Your task to perform on an android device: Add "bose soundlink" to the cart on ebay, then select checkout. Image 0: 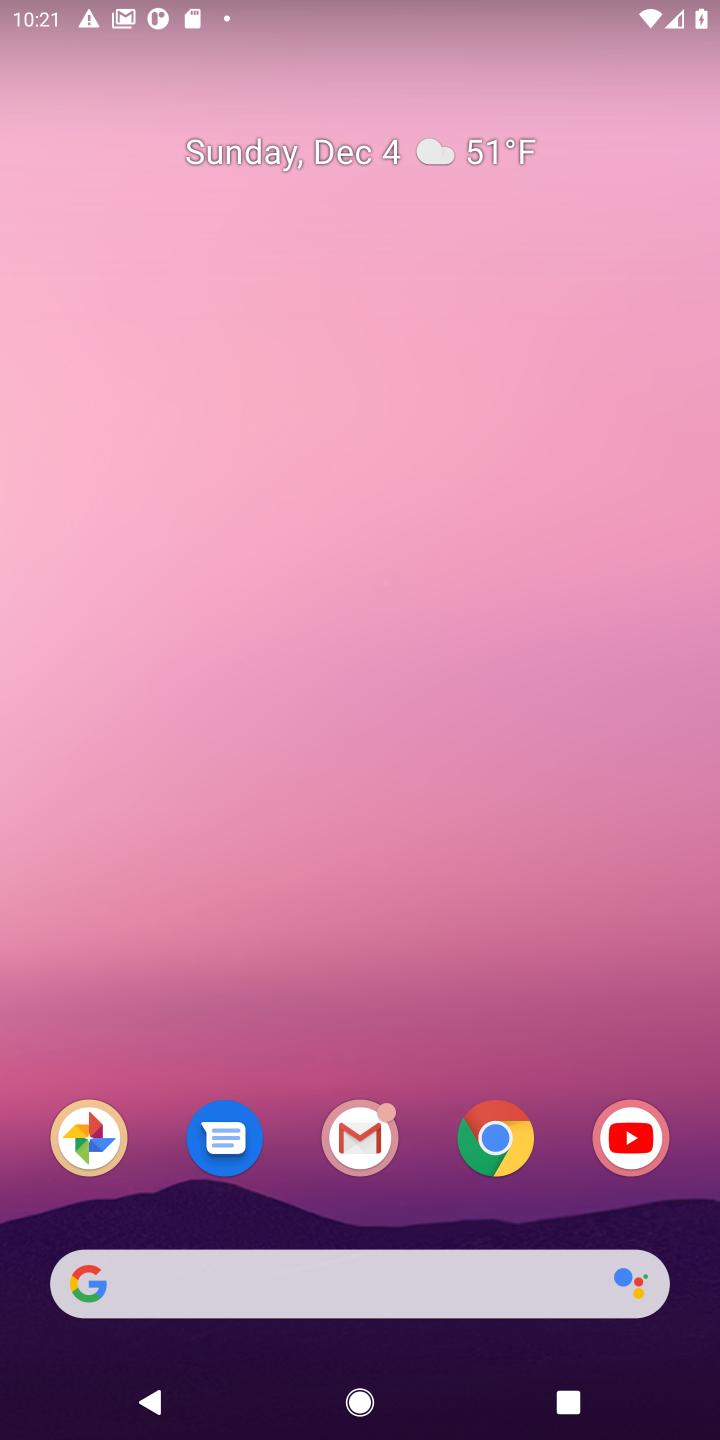
Step 0: click (493, 1134)
Your task to perform on an android device: Add "bose soundlink" to the cart on ebay, then select checkout. Image 1: 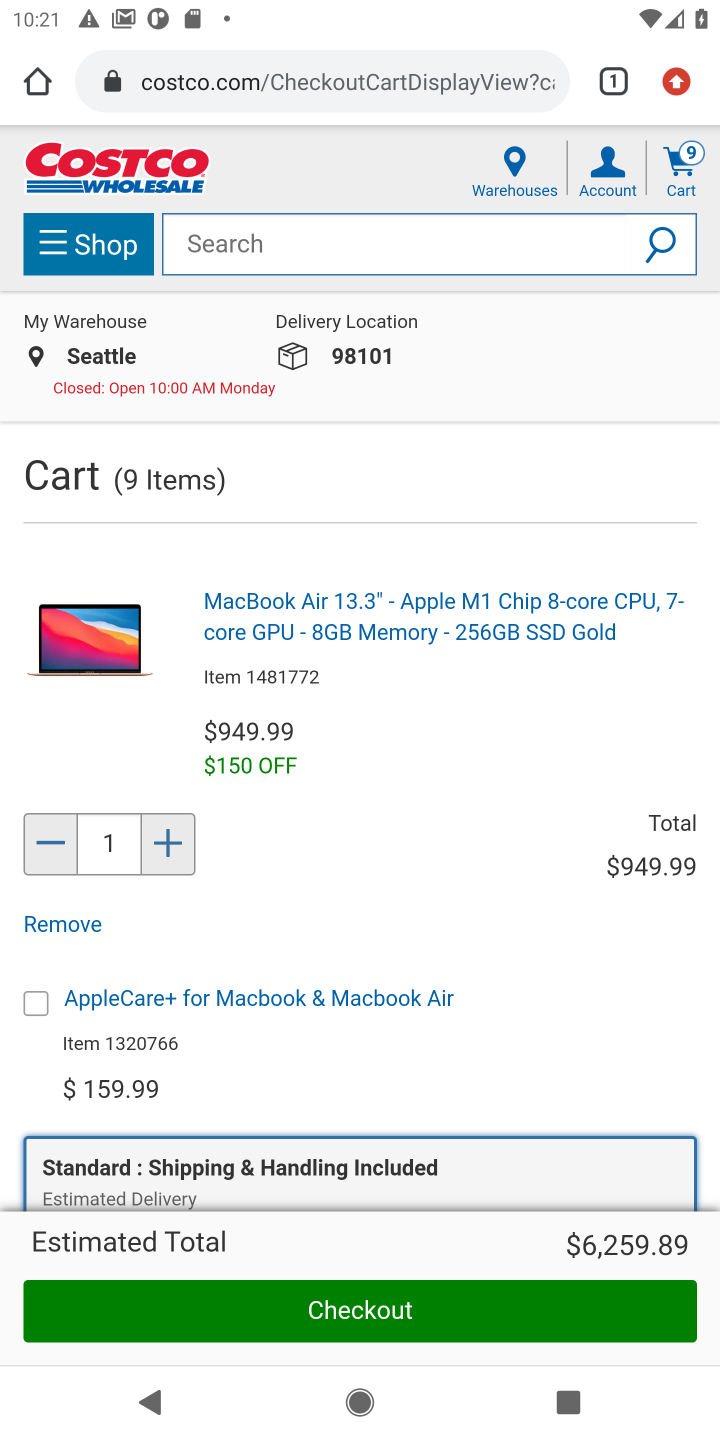
Step 1: click (437, 83)
Your task to perform on an android device: Add "bose soundlink" to the cart on ebay, then select checkout. Image 2: 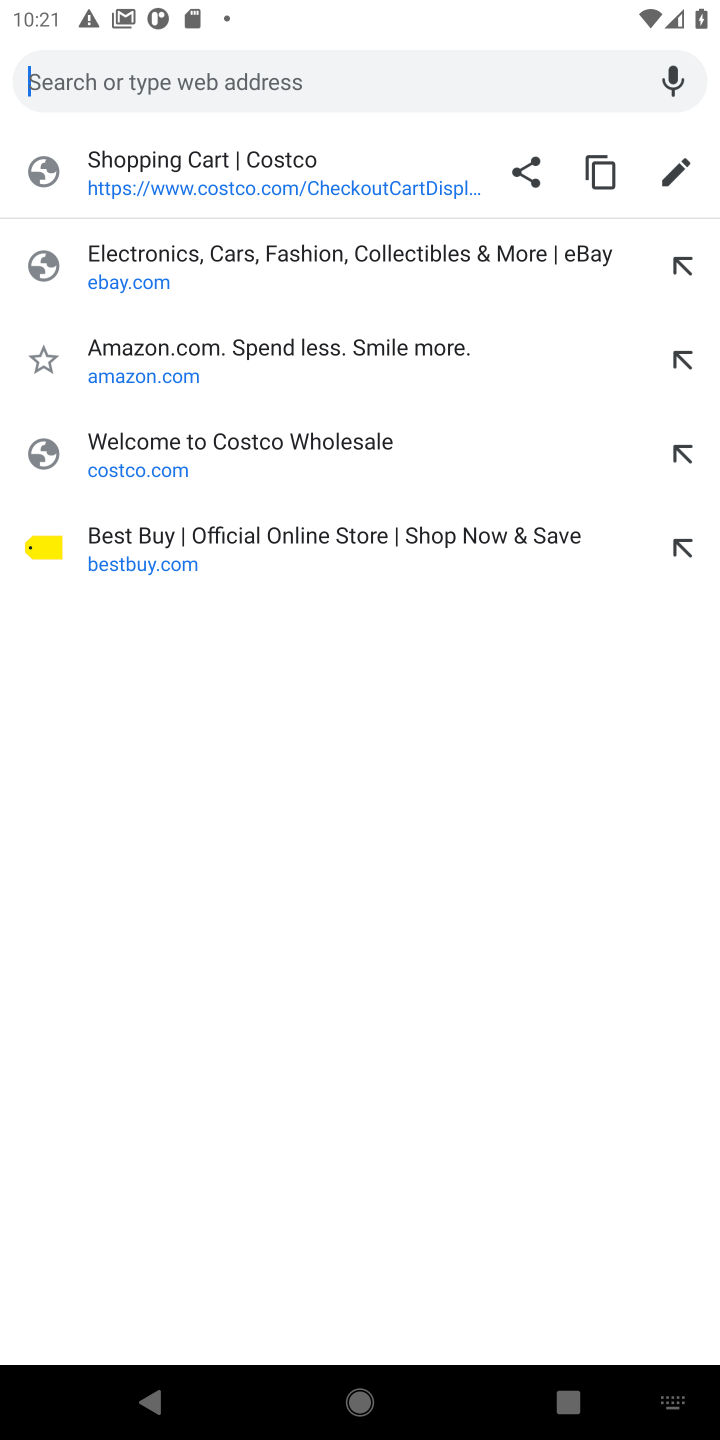
Step 2: click (256, 249)
Your task to perform on an android device: Add "bose soundlink" to the cart on ebay, then select checkout. Image 3: 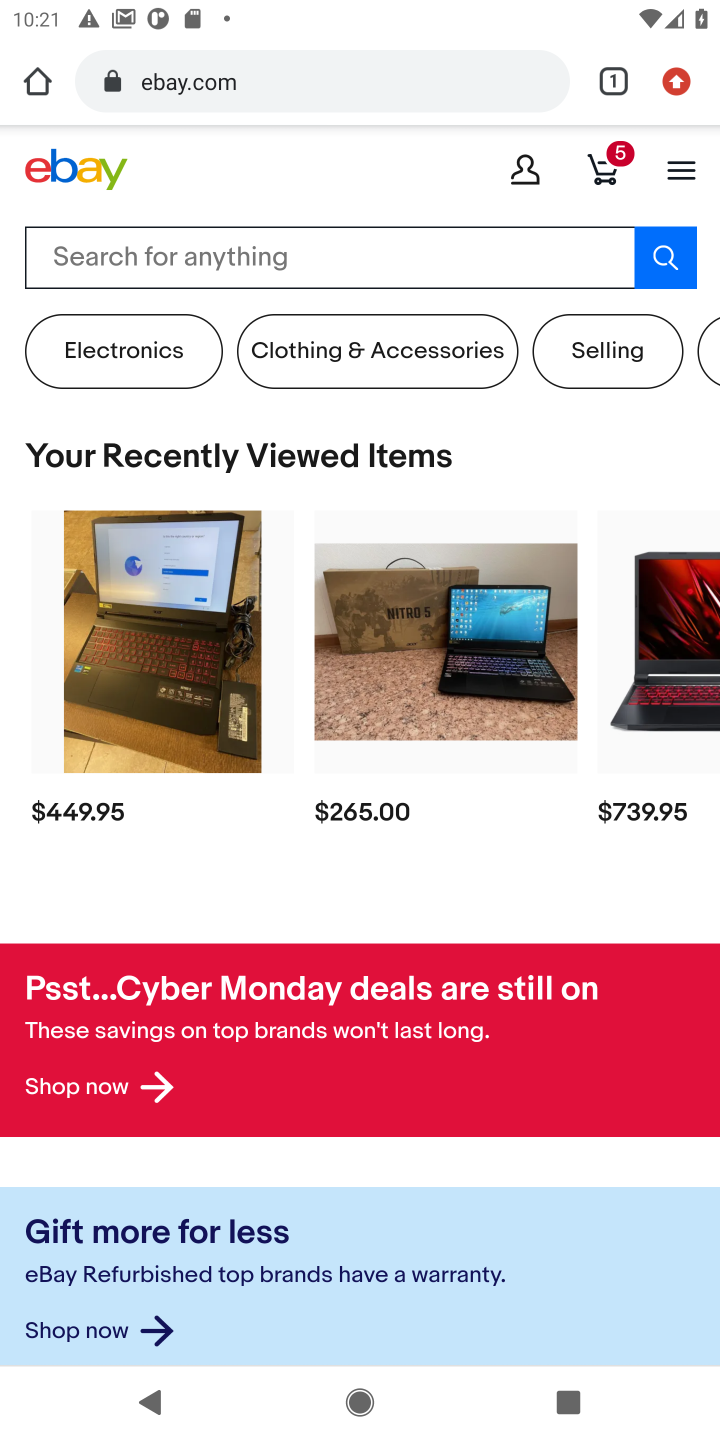
Step 3: click (457, 234)
Your task to perform on an android device: Add "bose soundlink" to the cart on ebay, then select checkout. Image 4: 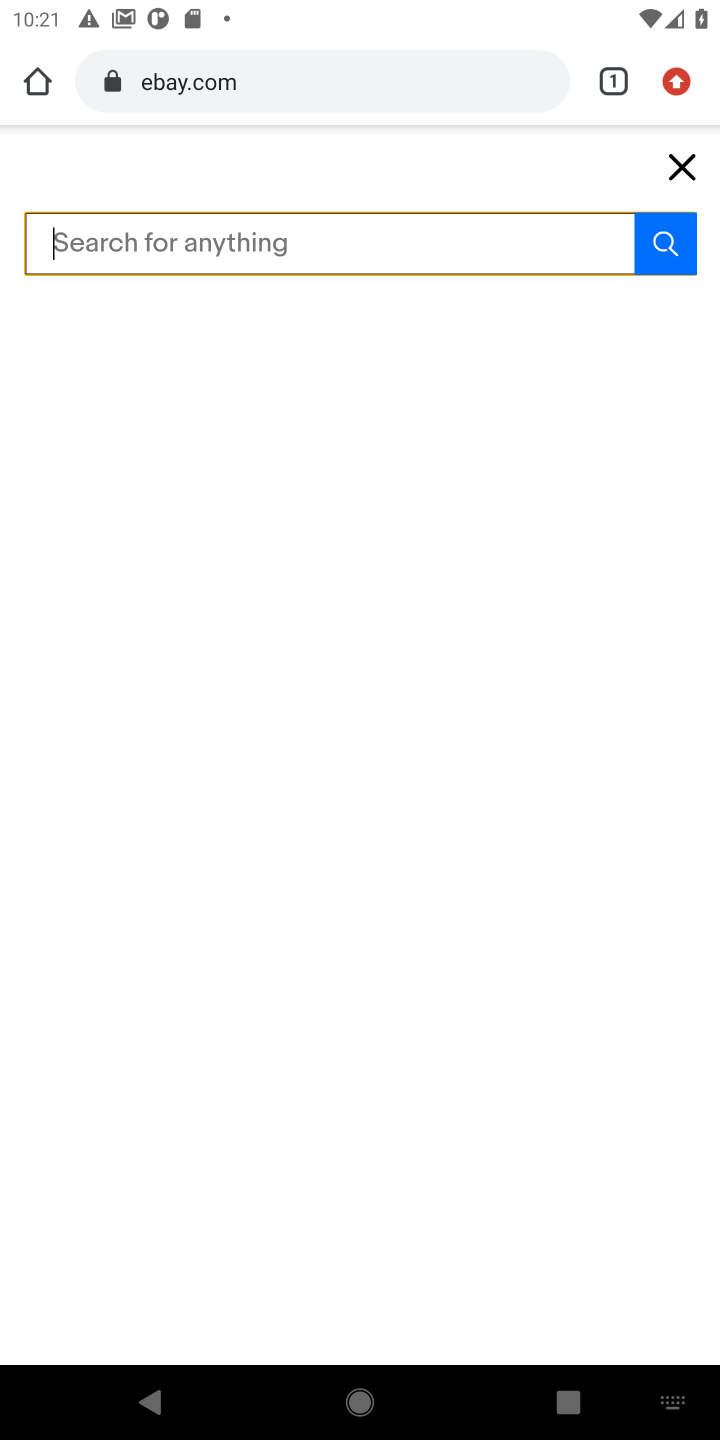
Step 4: press enter
Your task to perform on an android device: Add "bose soundlink" to the cart on ebay, then select checkout. Image 5: 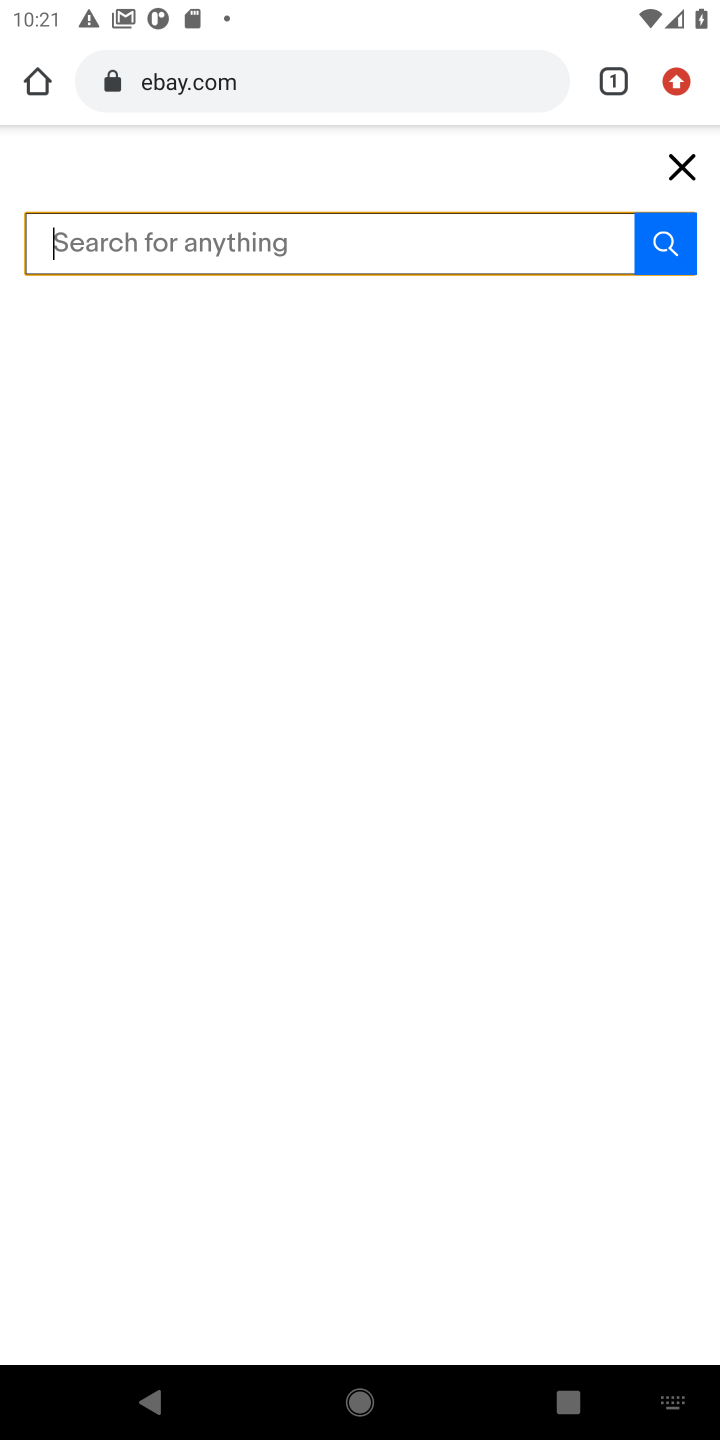
Step 5: type "bose soundlink"
Your task to perform on an android device: Add "bose soundlink" to the cart on ebay, then select checkout. Image 6: 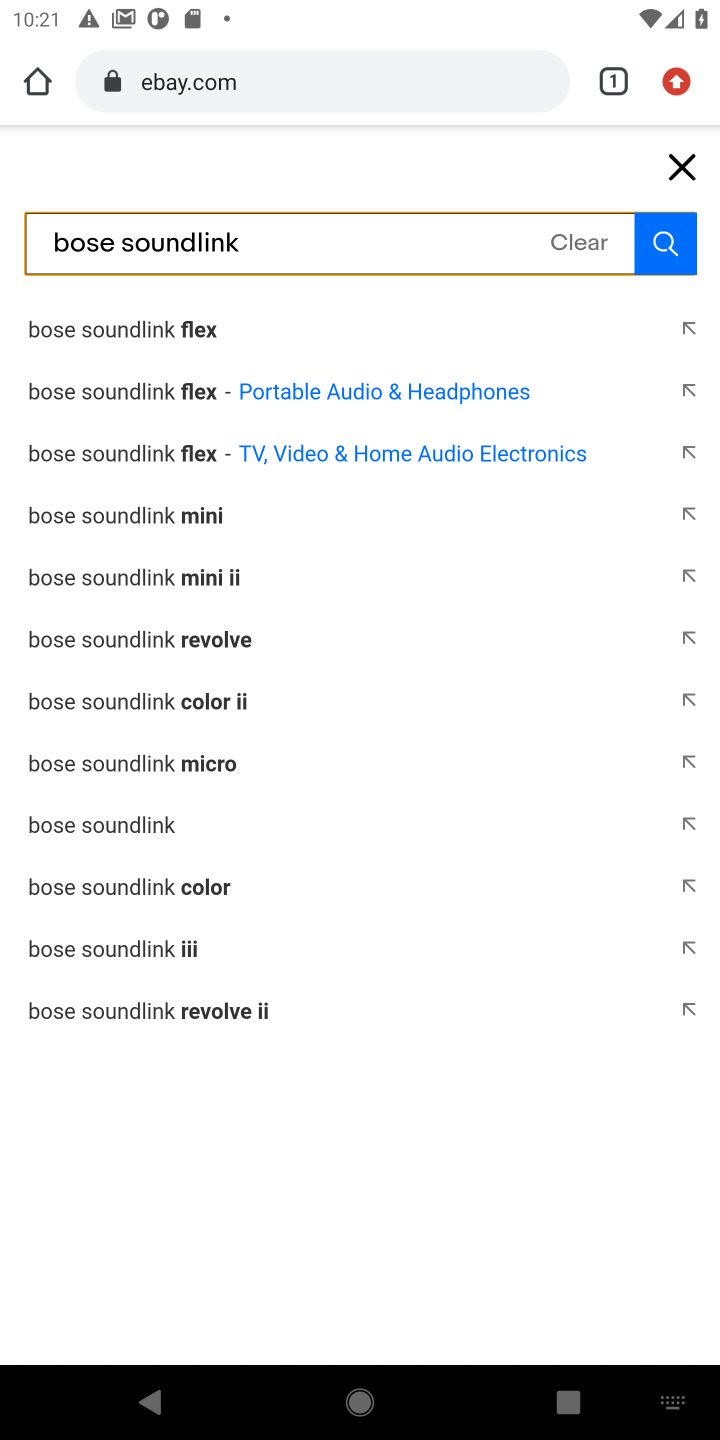
Step 6: click (154, 832)
Your task to perform on an android device: Add "bose soundlink" to the cart on ebay, then select checkout. Image 7: 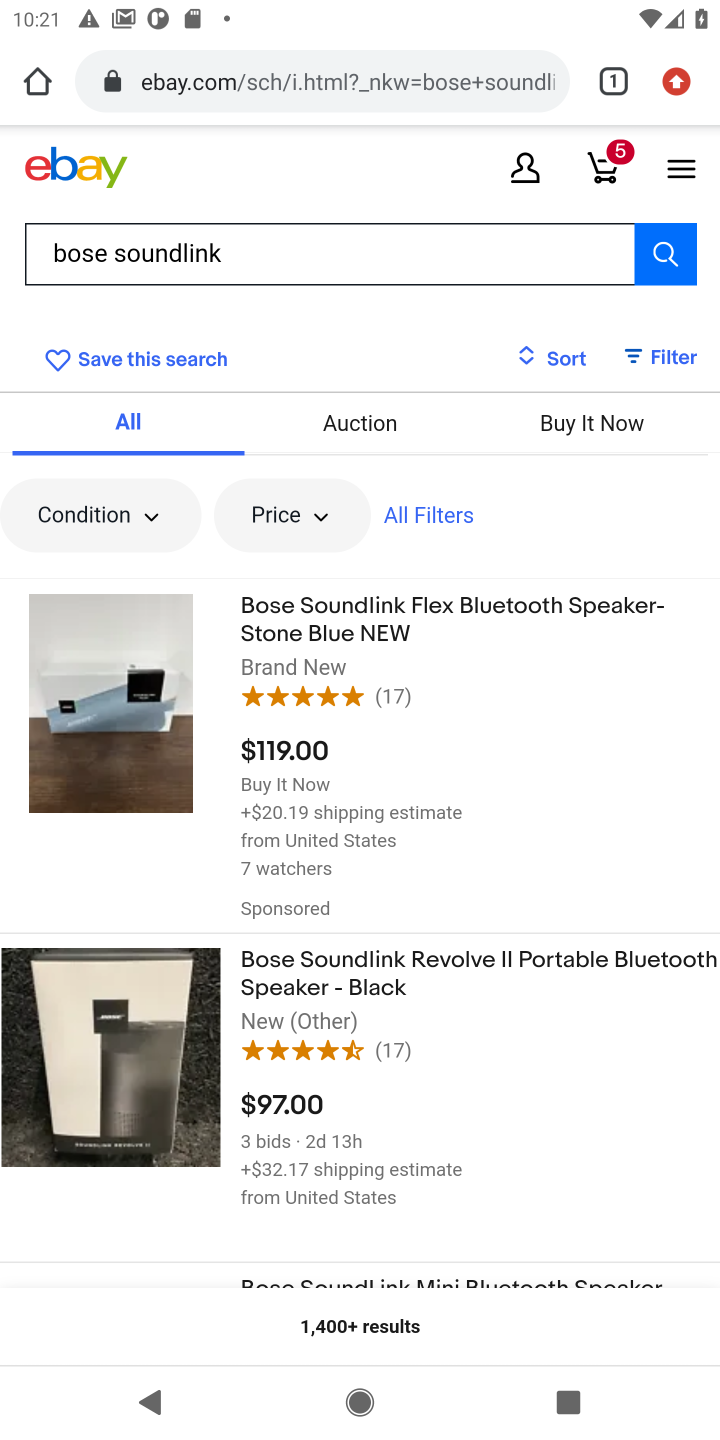
Step 7: click (106, 727)
Your task to perform on an android device: Add "bose soundlink" to the cart on ebay, then select checkout. Image 8: 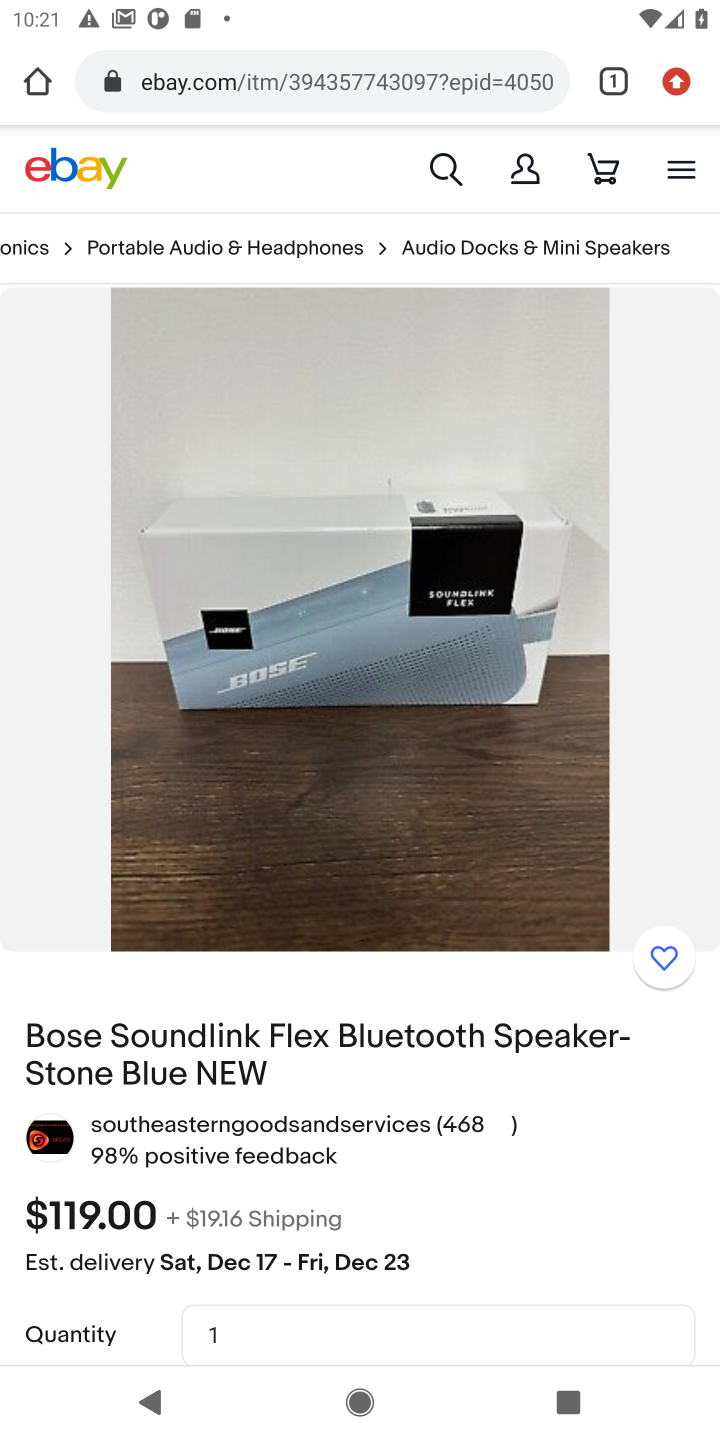
Step 8: press back button
Your task to perform on an android device: Add "bose soundlink" to the cart on ebay, then select checkout. Image 9: 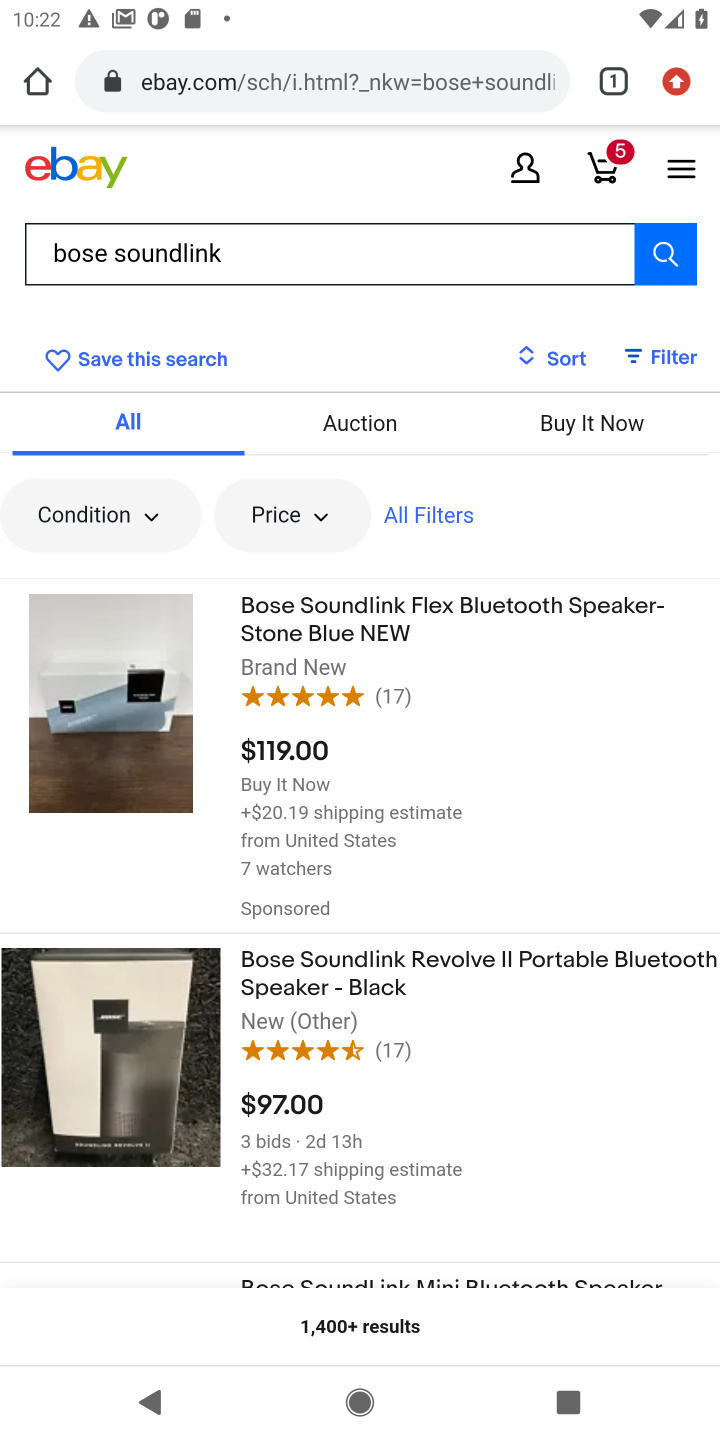
Step 9: drag from (527, 1079) to (523, 541)
Your task to perform on an android device: Add "bose soundlink" to the cart on ebay, then select checkout. Image 10: 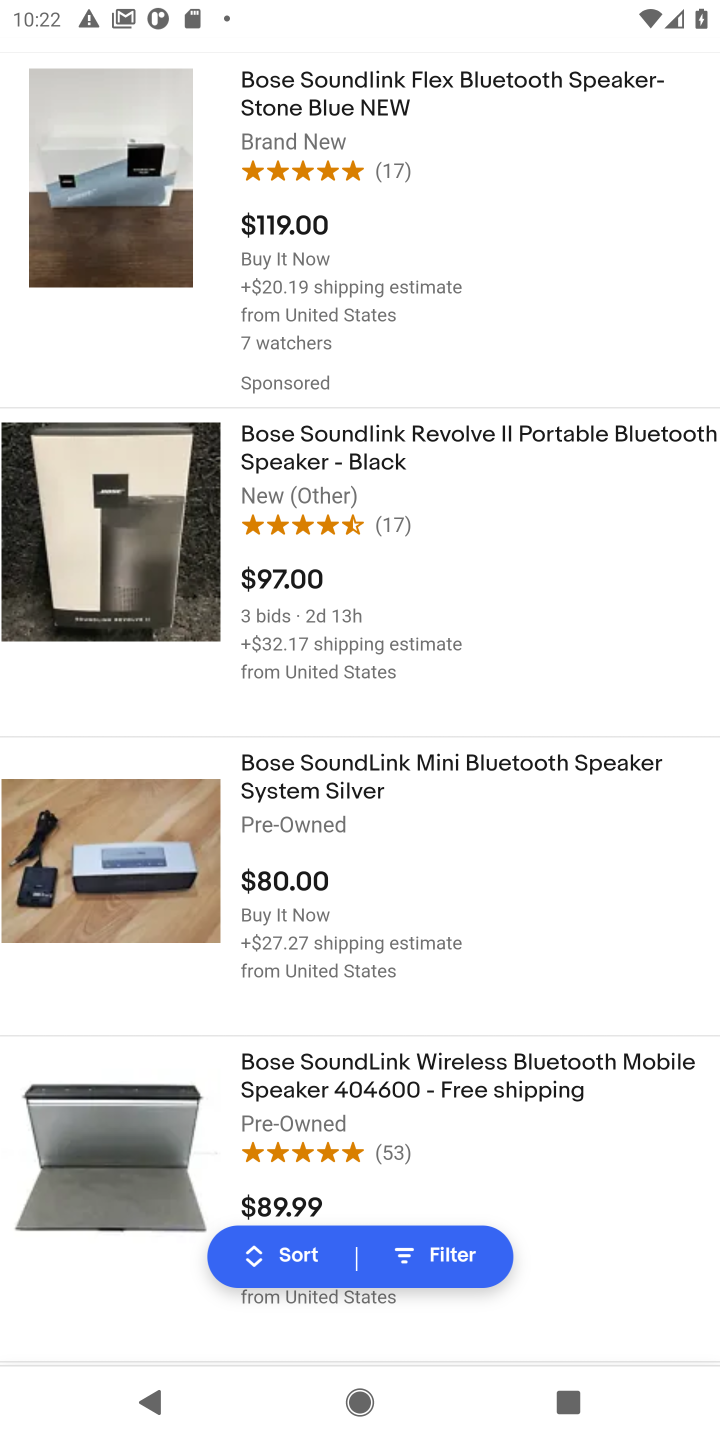
Step 10: click (94, 1162)
Your task to perform on an android device: Add "bose soundlink" to the cart on ebay, then select checkout. Image 11: 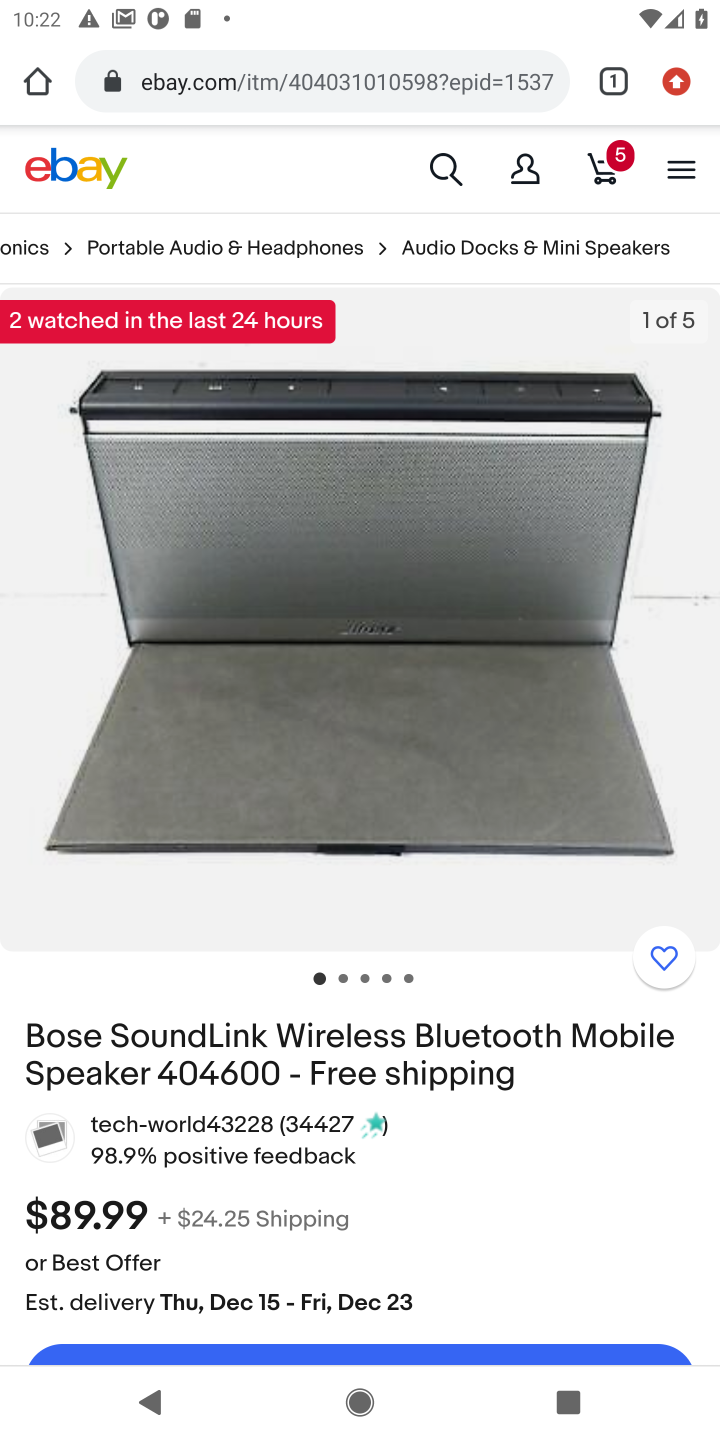
Step 11: click (555, 683)
Your task to perform on an android device: Add "bose soundlink" to the cart on ebay, then select checkout. Image 12: 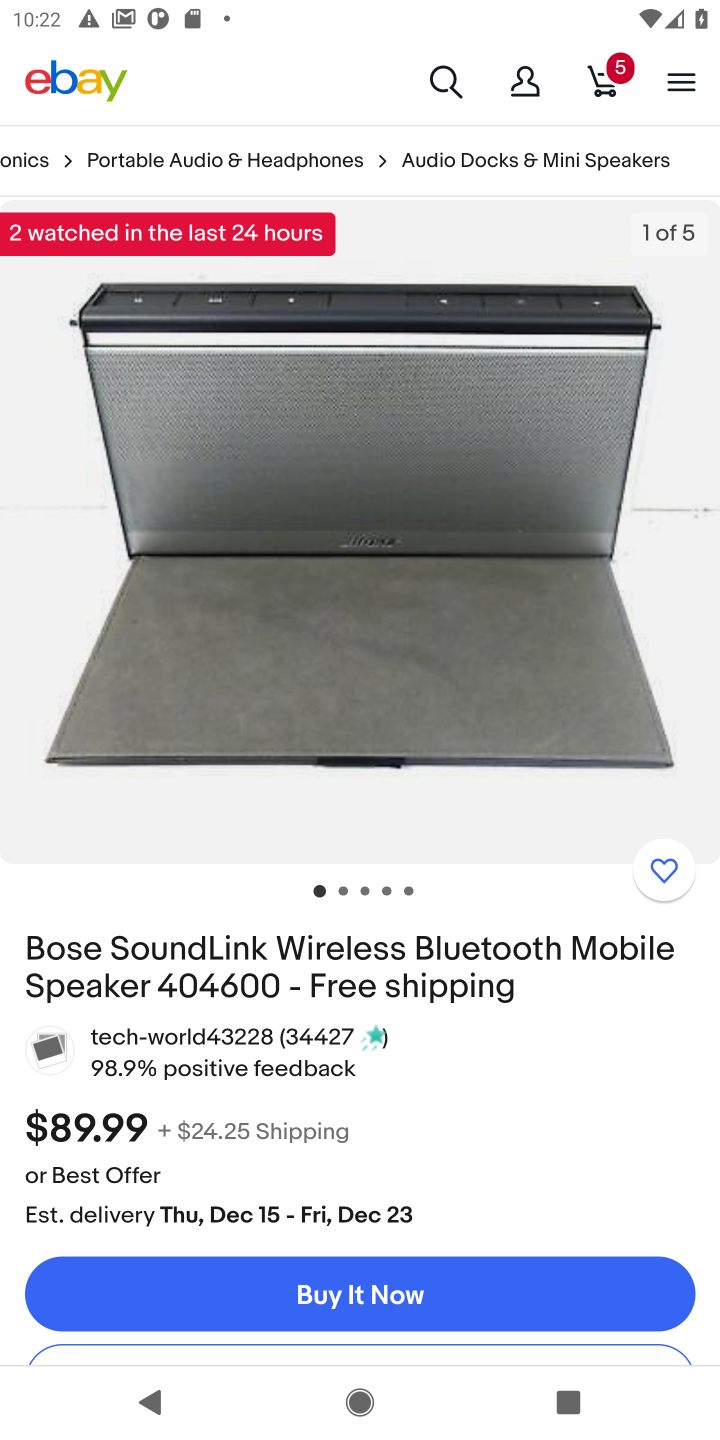
Step 12: drag from (562, 1116) to (566, 683)
Your task to perform on an android device: Add "bose soundlink" to the cart on ebay, then select checkout. Image 13: 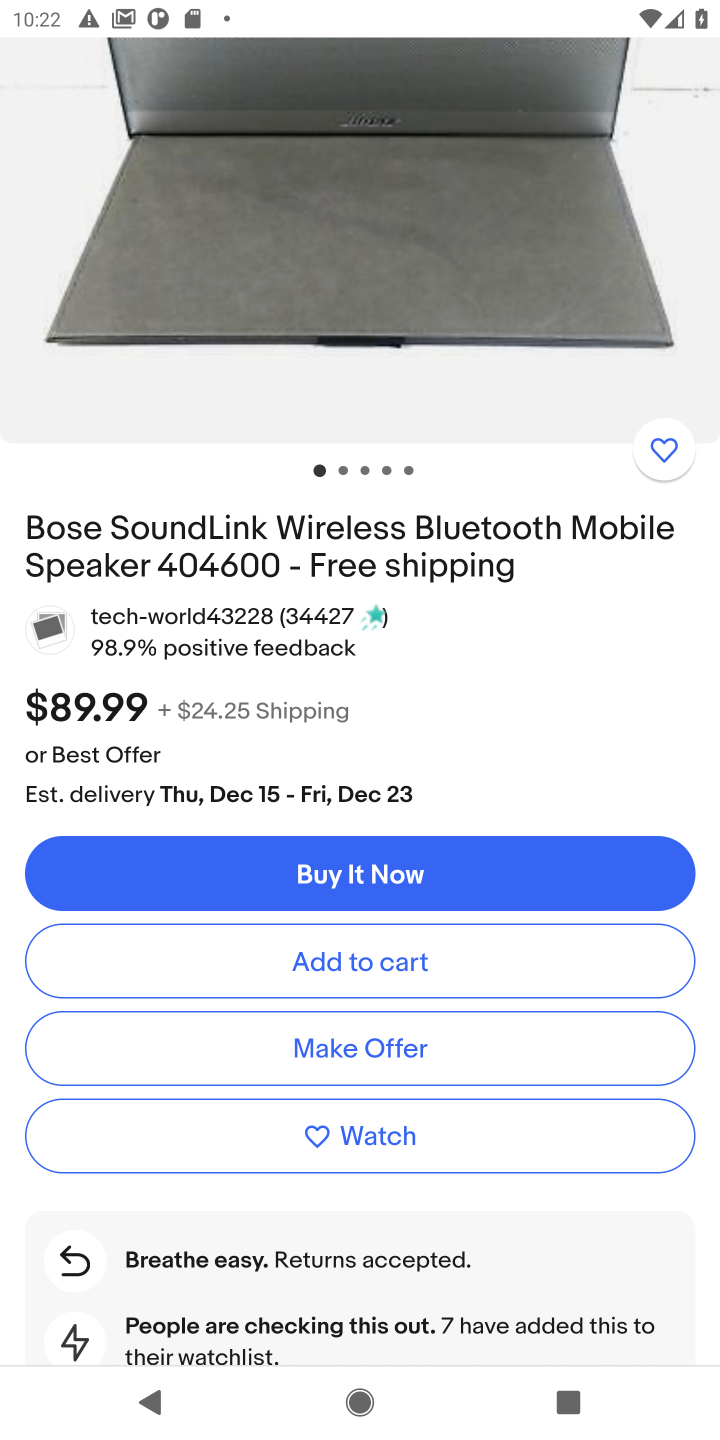
Step 13: click (381, 956)
Your task to perform on an android device: Add "bose soundlink" to the cart on ebay, then select checkout. Image 14: 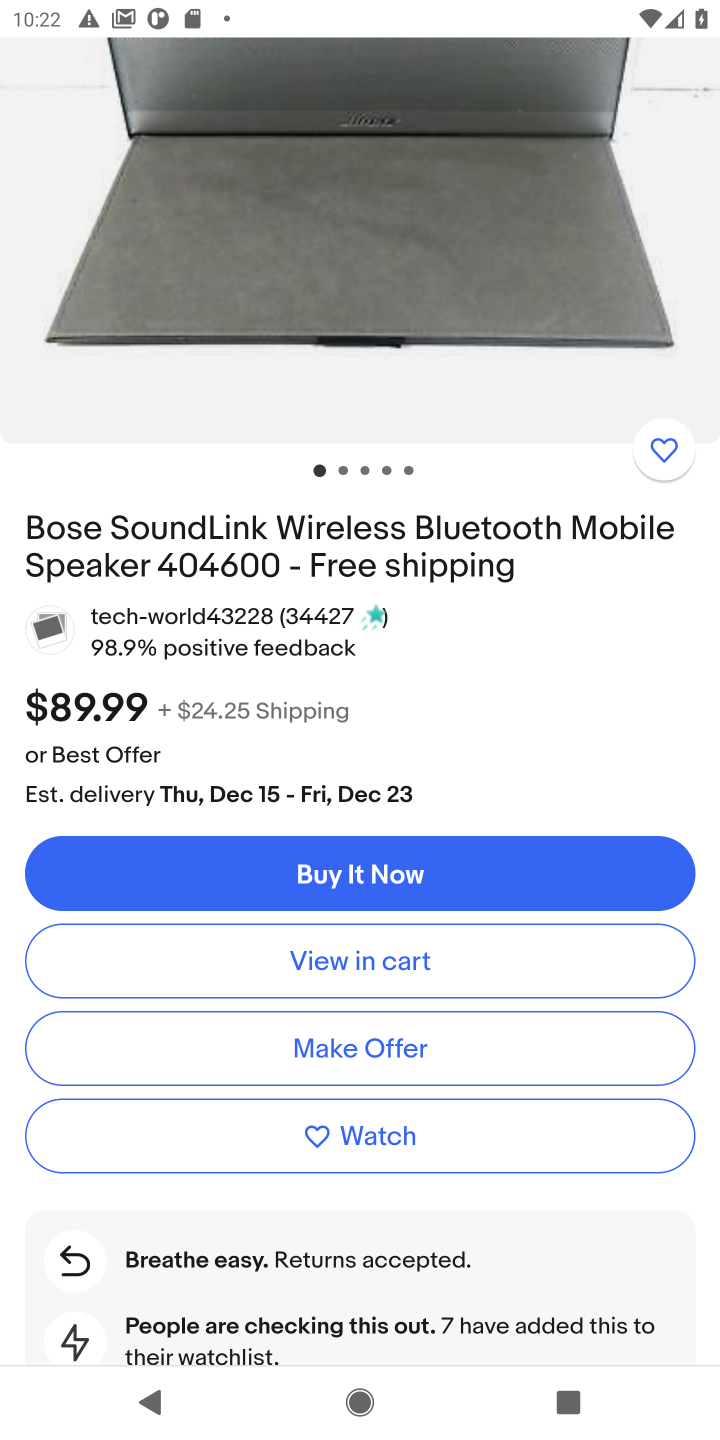
Step 14: click (381, 956)
Your task to perform on an android device: Add "bose soundlink" to the cart on ebay, then select checkout. Image 15: 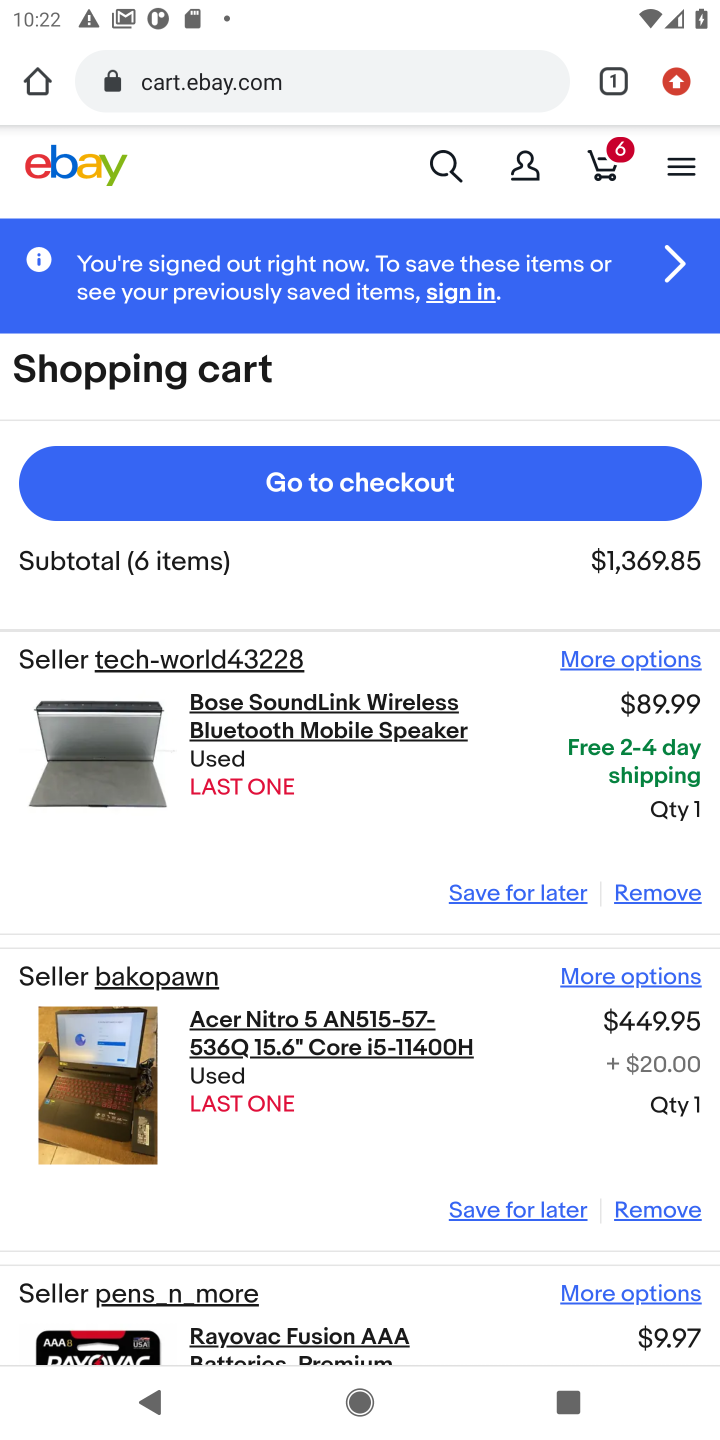
Step 15: click (418, 480)
Your task to perform on an android device: Add "bose soundlink" to the cart on ebay, then select checkout. Image 16: 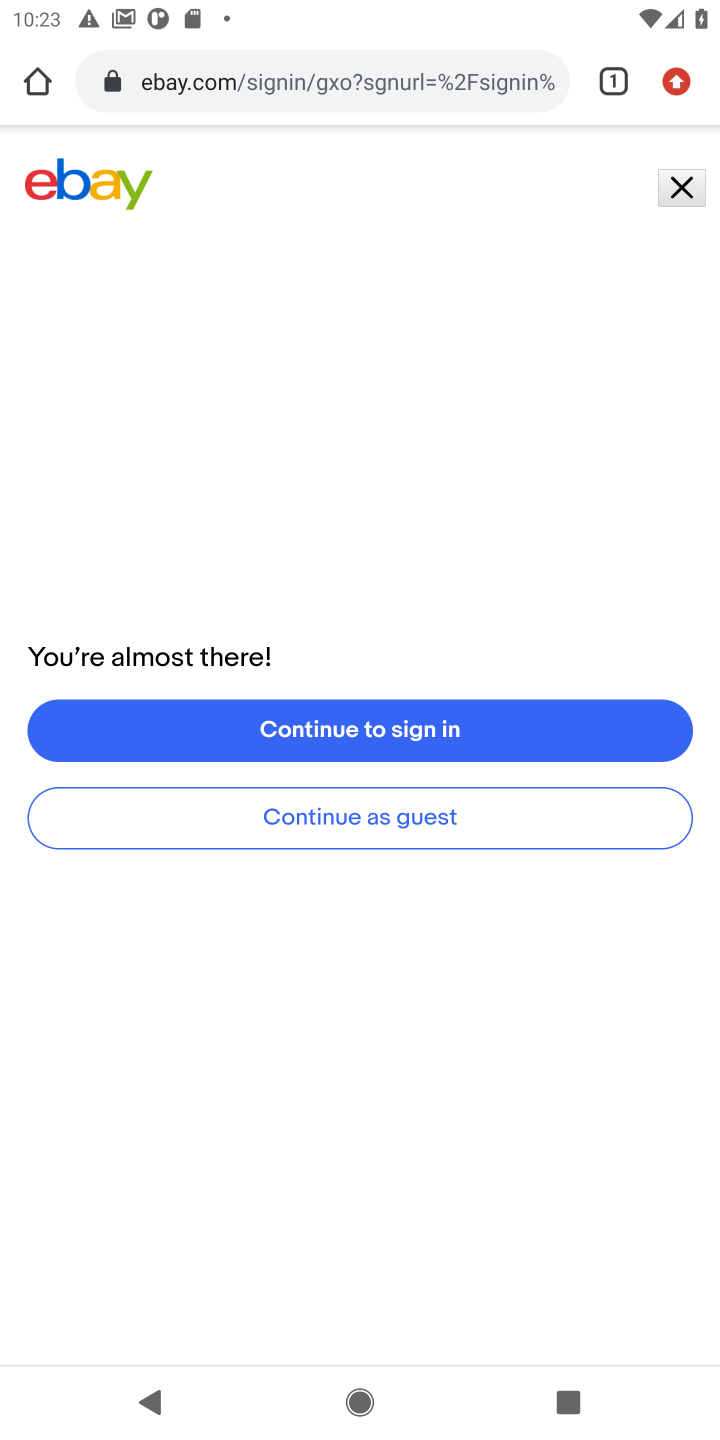
Step 16: task complete